Your task to perform on an android device: see sites visited before in the chrome app Image 0: 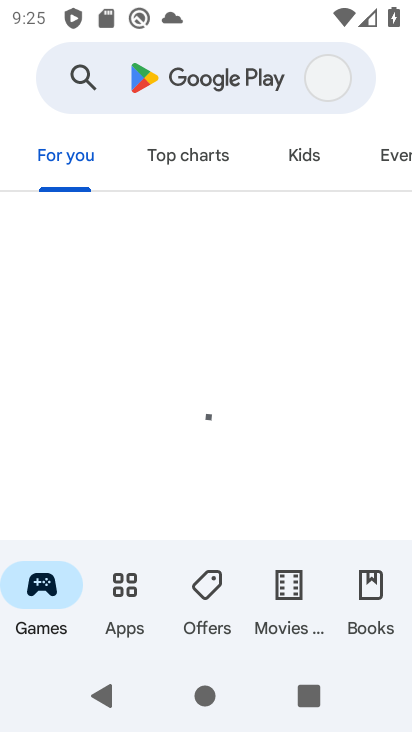
Step 0: press home button
Your task to perform on an android device: see sites visited before in the chrome app Image 1: 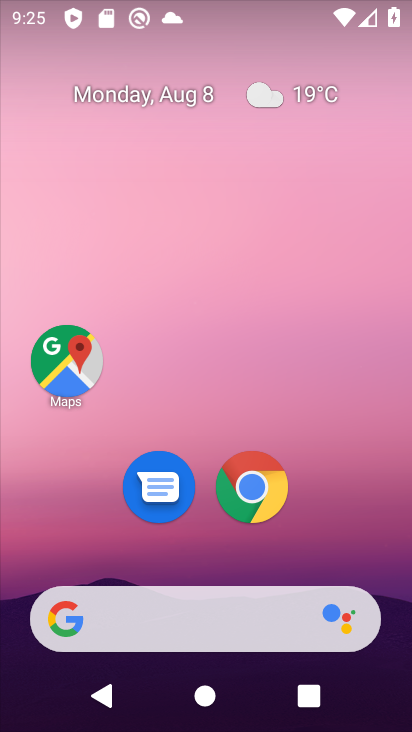
Step 1: drag from (209, 525) to (216, 94)
Your task to perform on an android device: see sites visited before in the chrome app Image 2: 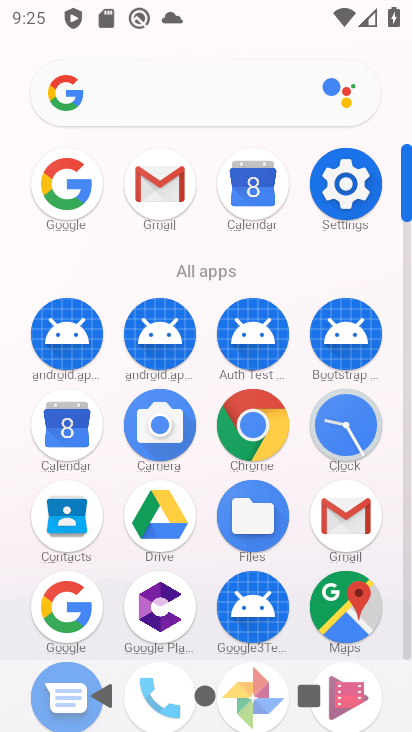
Step 2: click (257, 427)
Your task to perform on an android device: see sites visited before in the chrome app Image 3: 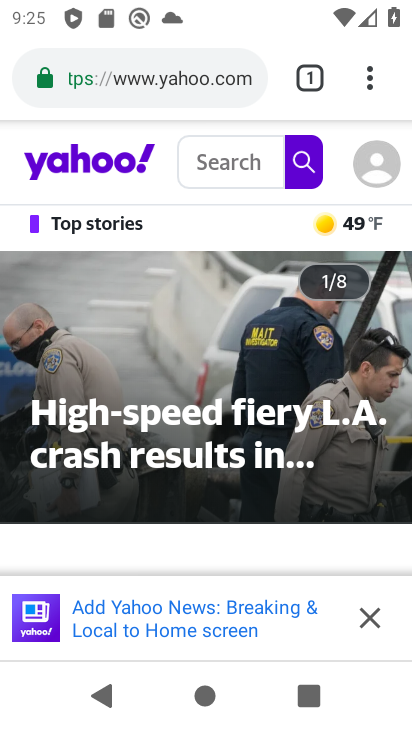
Step 3: click (368, 88)
Your task to perform on an android device: see sites visited before in the chrome app Image 4: 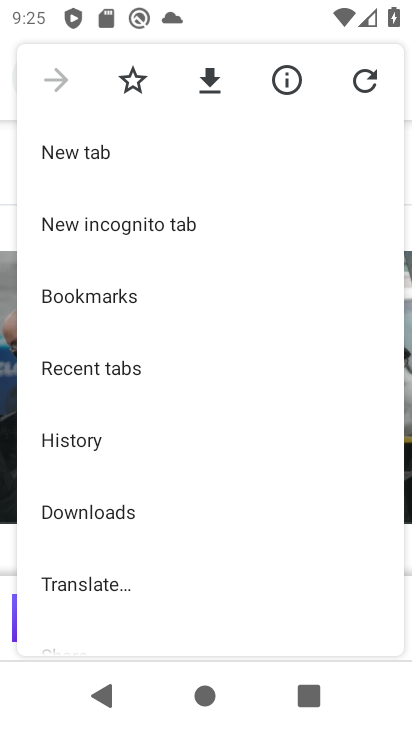
Step 4: click (95, 367)
Your task to perform on an android device: see sites visited before in the chrome app Image 5: 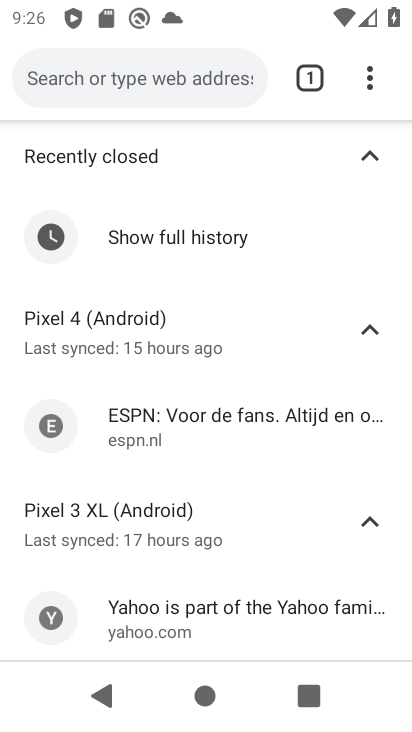
Step 5: task complete